Your task to perform on an android device: Turn on the flashlight Image 0: 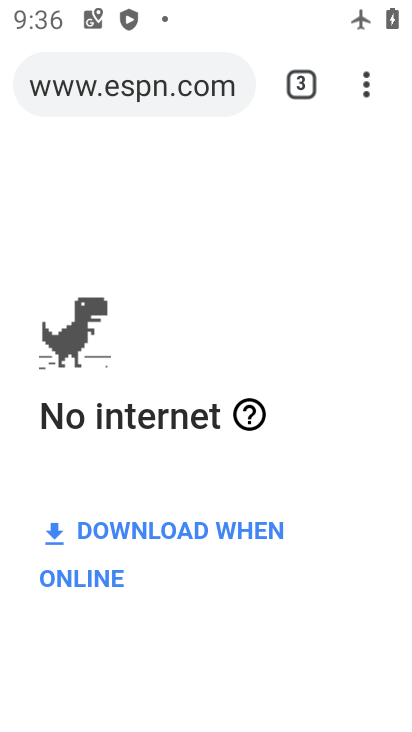
Step 0: press home button
Your task to perform on an android device: Turn on the flashlight Image 1: 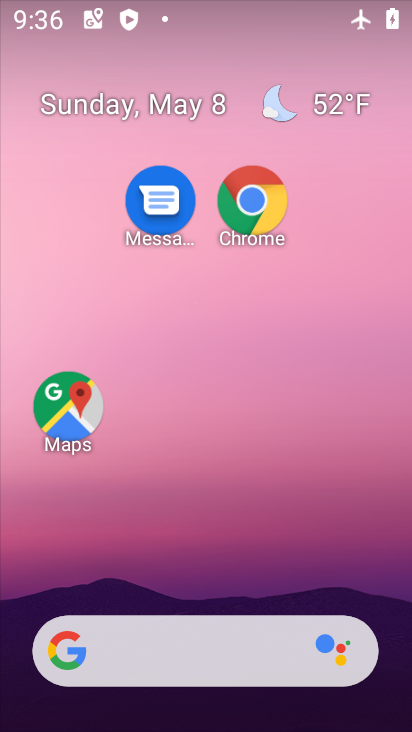
Step 1: drag from (217, 615) to (154, 0)
Your task to perform on an android device: Turn on the flashlight Image 2: 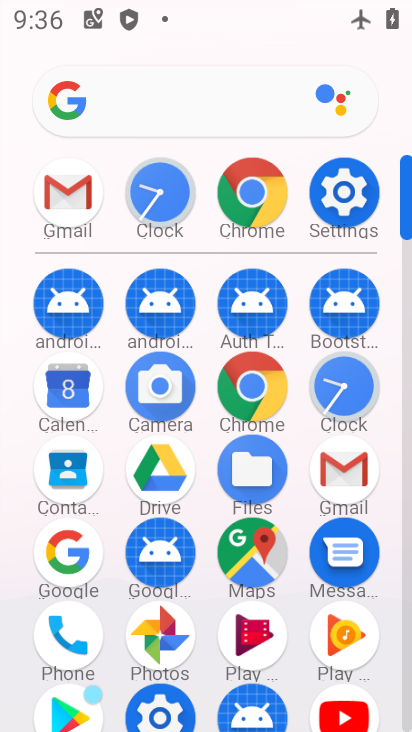
Step 2: click (363, 205)
Your task to perform on an android device: Turn on the flashlight Image 3: 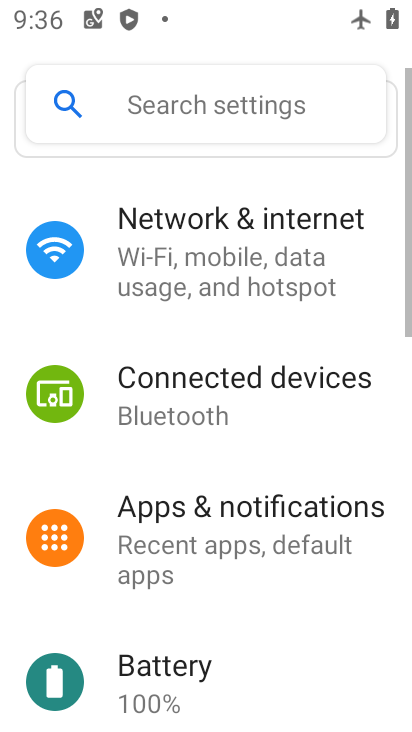
Step 3: click (199, 110)
Your task to perform on an android device: Turn on the flashlight Image 4: 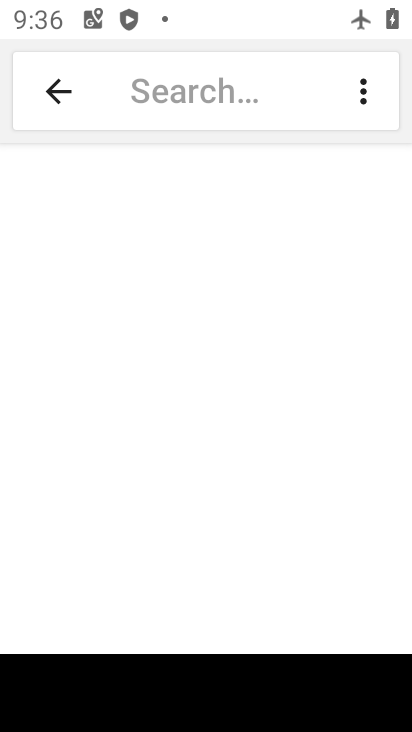
Step 4: type "flashlight"
Your task to perform on an android device: Turn on the flashlight Image 5: 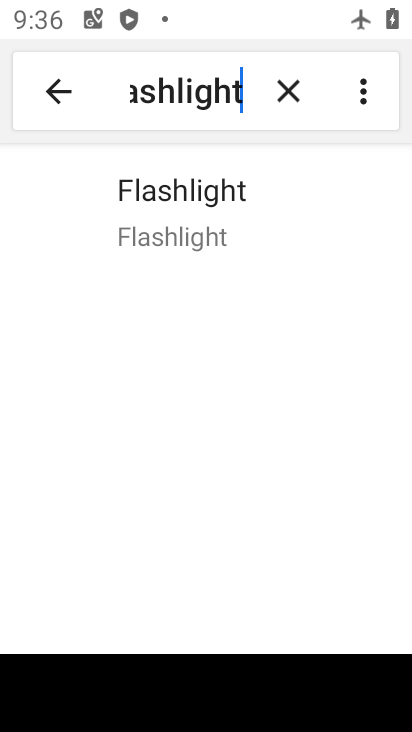
Step 5: task complete